Your task to perform on an android device: Search for Mexican restaurants on Maps Image 0: 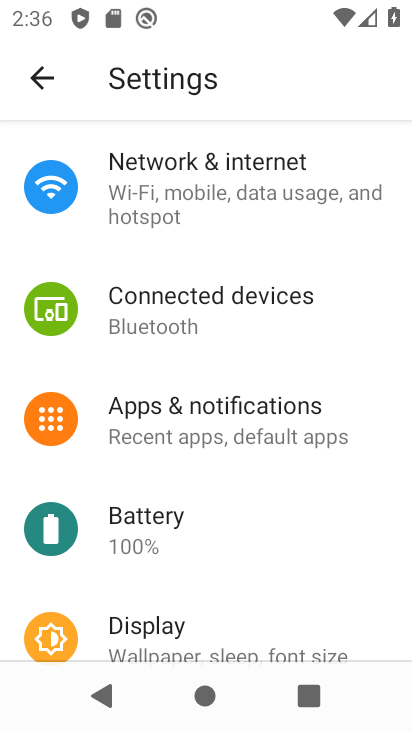
Step 0: press home button
Your task to perform on an android device: Search for Mexican restaurants on Maps Image 1: 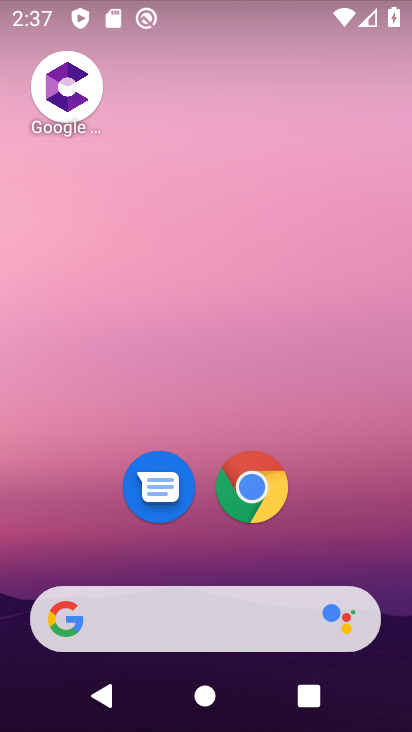
Step 1: drag from (193, 550) to (286, 22)
Your task to perform on an android device: Search for Mexican restaurants on Maps Image 2: 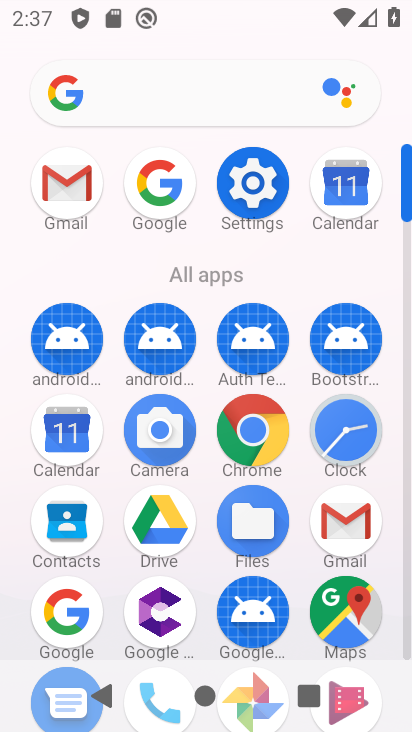
Step 2: click (335, 603)
Your task to perform on an android device: Search for Mexican restaurants on Maps Image 3: 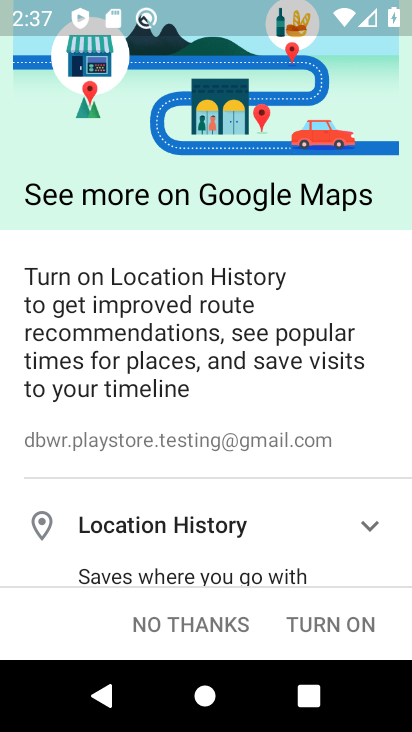
Step 3: click (192, 625)
Your task to perform on an android device: Search for Mexican restaurants on Maps Image 4: 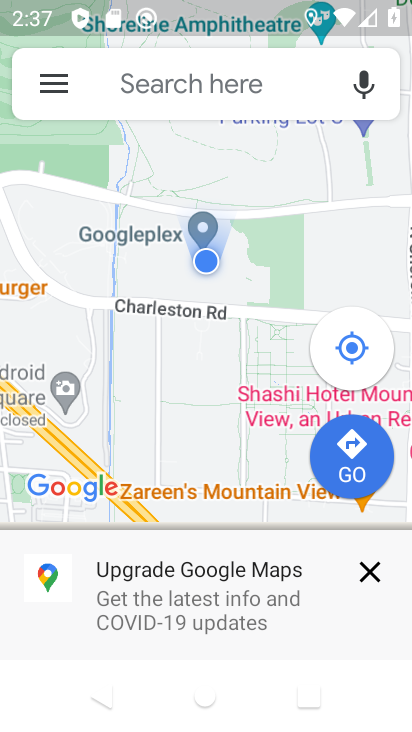
Step 4: click (178, 85)
Your task to perform on an android device: Search for Mexican restaurants on Maps Image 5: 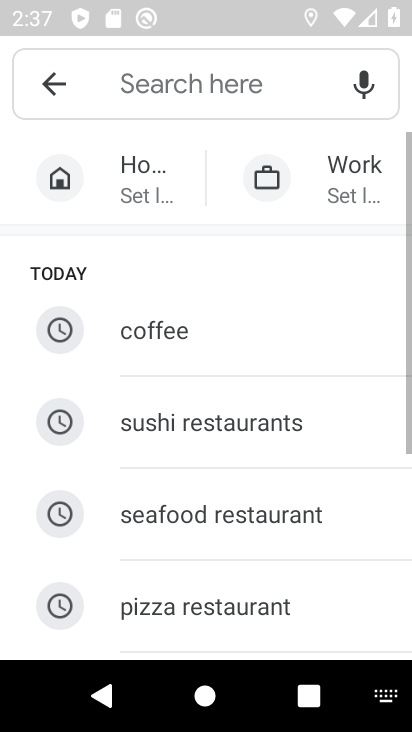
Step 5: drag from (176, 585) to (262, 214)
Your task to perform on an android device: Search for Mexican restaurants on Maps Image 6: 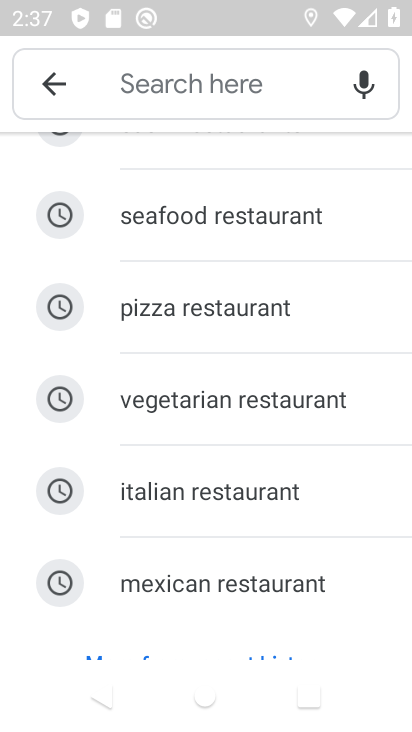
Step 6: click (165, 580)
Your task to perform on an android device: Search for Mexican restaurants on Maps Image 7: 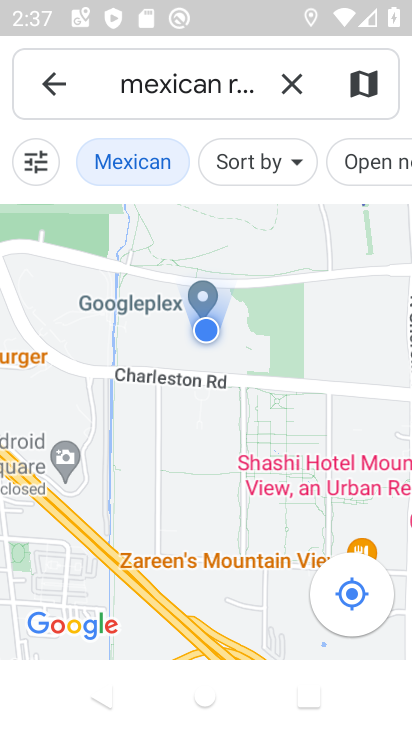
Step 7: task complete